Your task to perform on an android device: toggle priority inbox in the gmail app Image 0: 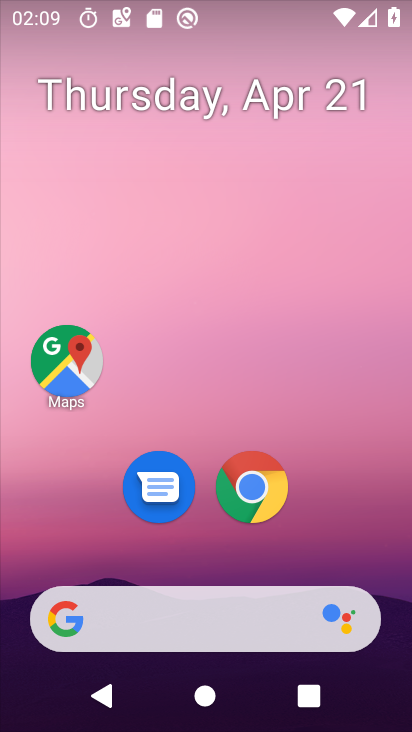
Step 0: click (238, 136)
Your task to perform on an android device: toggle priority inbox in the gmail app Image 1: 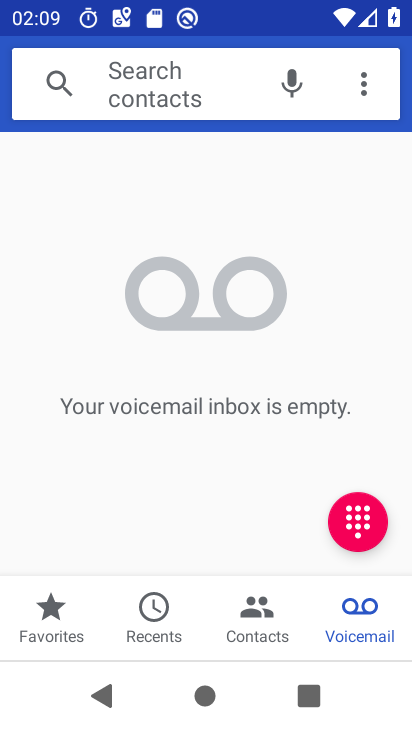
Step 1: press home button
Your task to perform on an android device: toggle priority inbox in the gmail app Image 2: 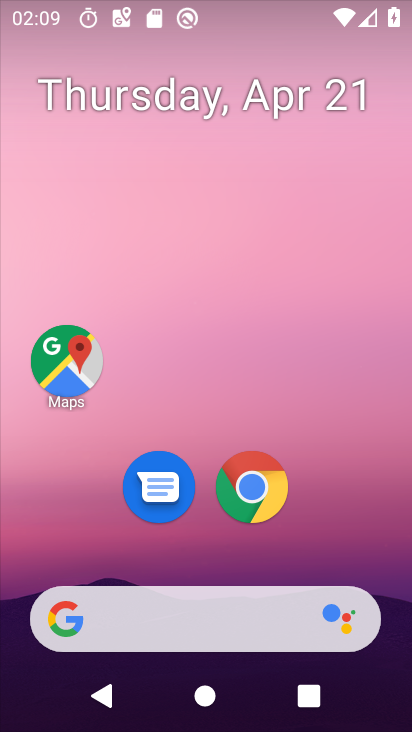
Step 2: drag from (205, 501) to (310, 197)
Your task to perform on an android device: toggle priority inbox in the gmail app Image 3: 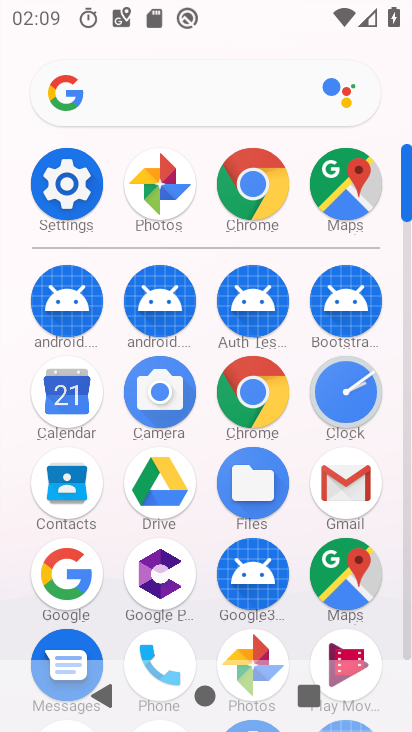
Step 3: click (344, 482)
Your task to perform on an android device: toggle priority inbox in the gmail app Image 4: 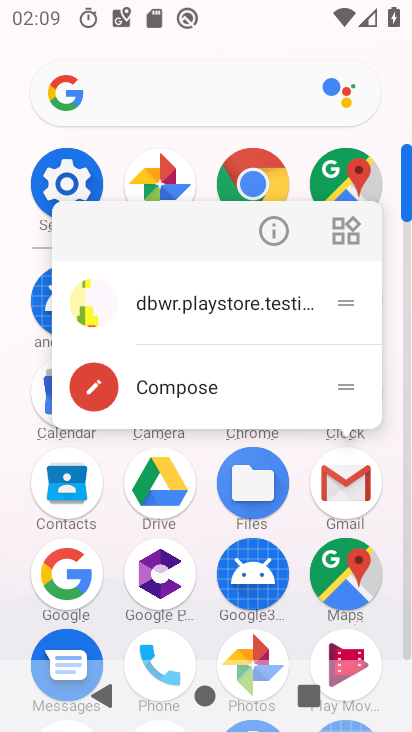
Step 4: click (276, 233)
Your task to perform on an android device: toggle priority inbox in the gmail app Image 5: 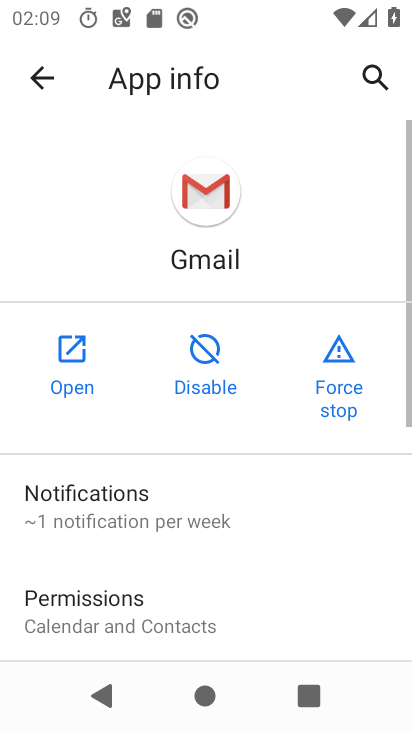
Step 5: click (83, 354)
Your task to perform on an android device: toggle priority inbox in the gmail app Image 6: 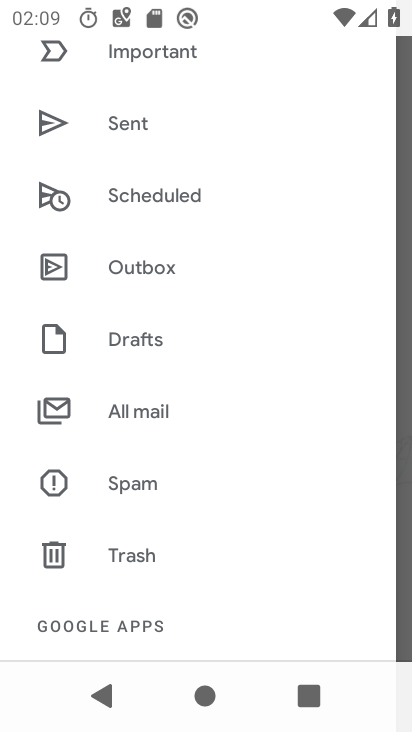
Step 6: drag from (219, 586) to (285, 193)
Your task to perform on an android device: toggle priority inbox in the gmail app Image 7: 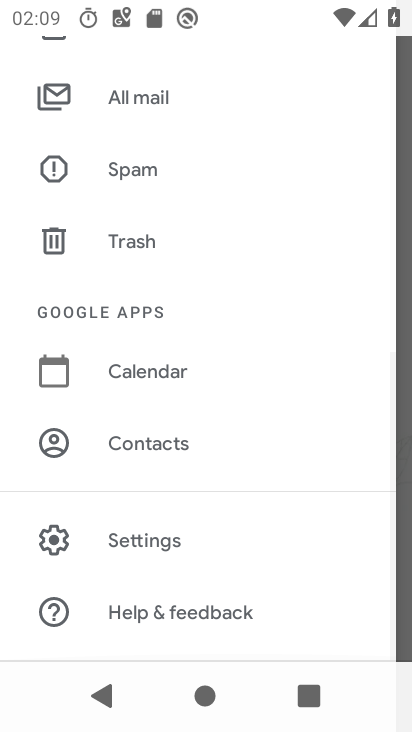
Step 7: drag from (296, 140) to (315, 641)
Your task to perform on an android device: toggle priority inbox in the gmail app Image 8: 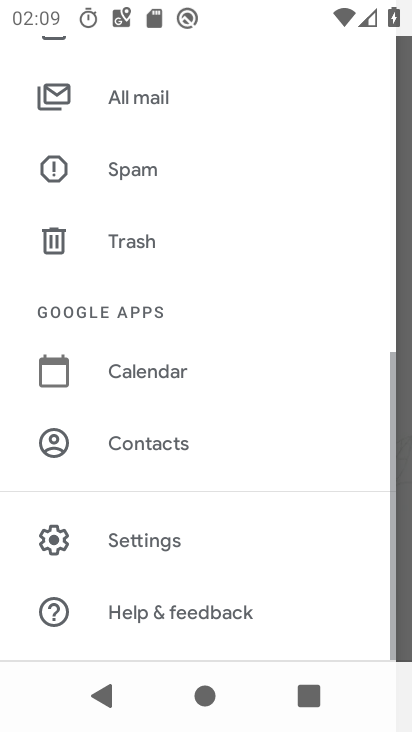
Step 8: drag from (293, 562) to (396, 151)
Your task to perform on an android device: toggle priority inbox in the gmail app Image 9: 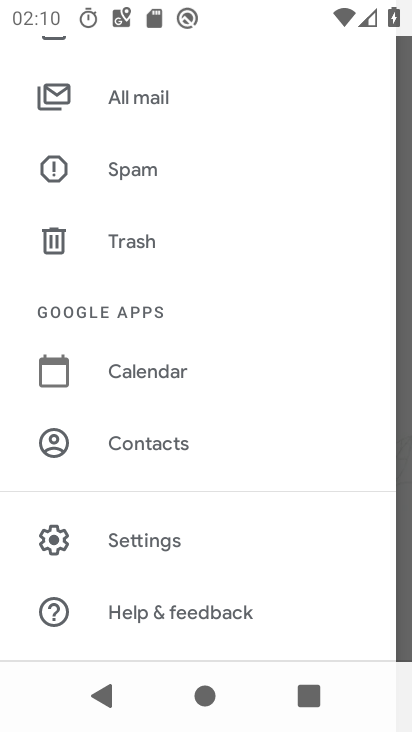
Step 9: click (144, 536)
Your task to perform on an android device: toggle priority inbox in the gmail app Image 10: 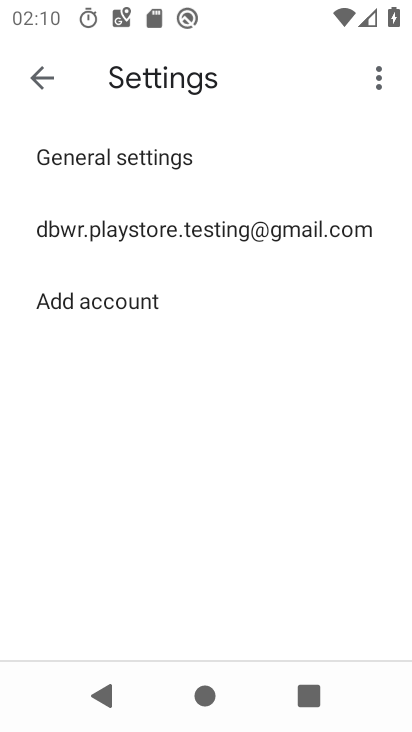
Step 10: click (145, 249)
Your task to perform on an android device: toggle priority inbox in the gmail app Image 11: 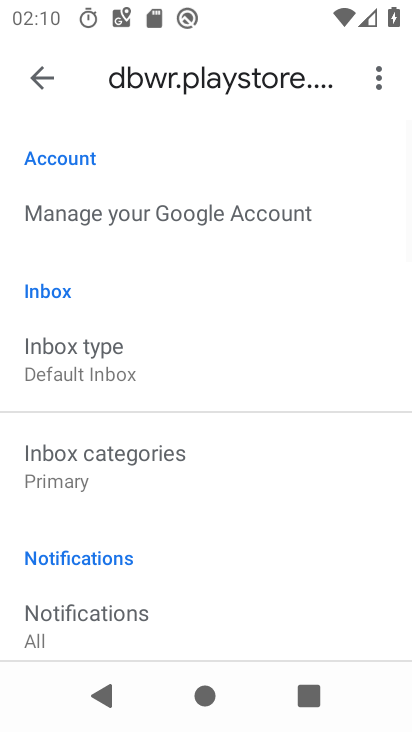
Step 11: click (131, 377)
Your task to perform on an android device: toggle priority inbox in the gmail app Image 12: 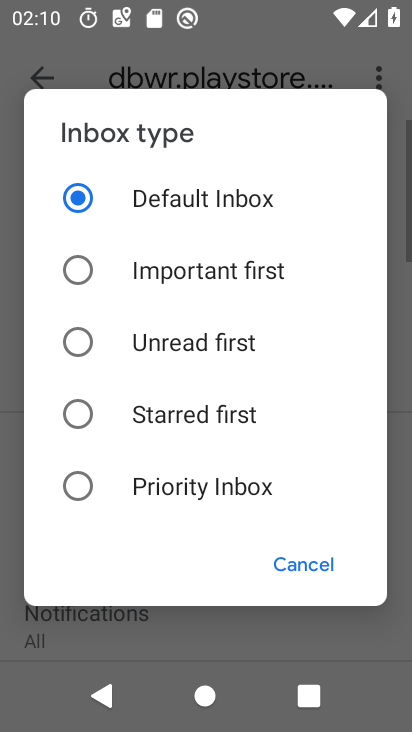
Step 12: click (166, 475)
Your task to perform on an android device: toggle priority inbox in the gmail app Image 13: 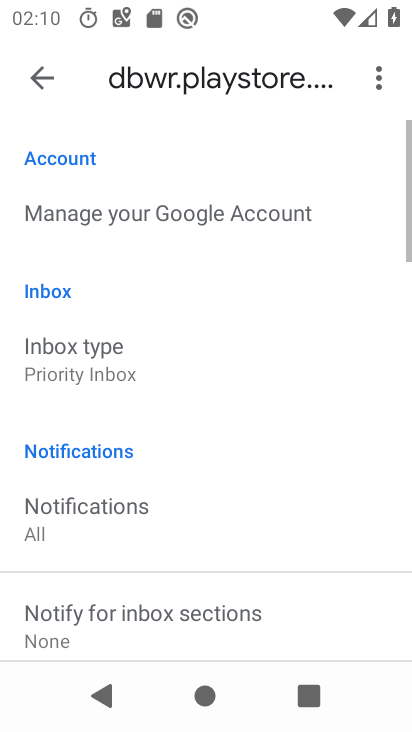
Step 13: task complete